Your task to perform on an android device: toggle airplane mode Image 0: 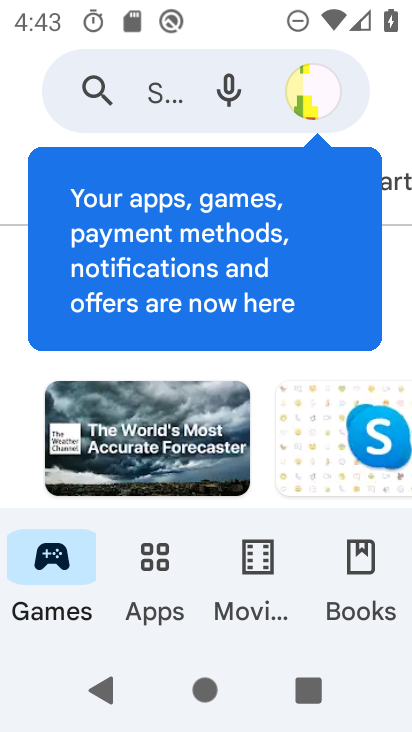
Step 0: press home button
Your task to perform on an android device: toggle airplane mode Image 1: 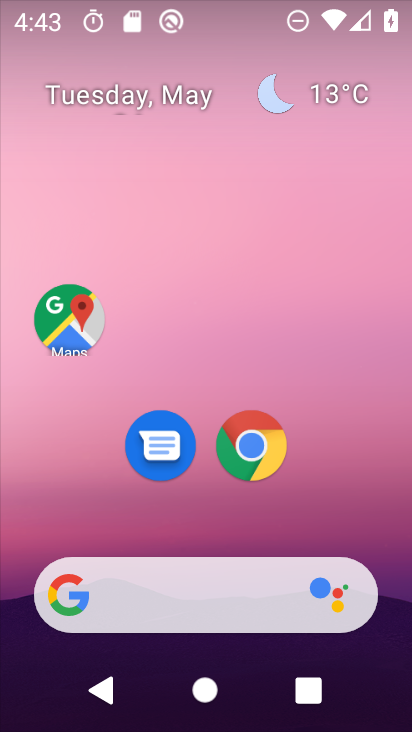
Step 1: drag from (227, 4) to (239, 544)
Your task to perform on an android device: toggle airplane mode Image 2: 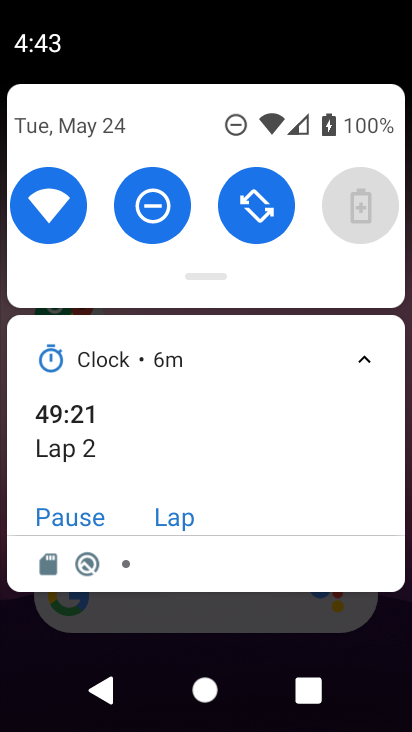
Step 2: drag from (215, 277) to (272, 660)
Your task to perform on an android device: toggle airplane mode Image 3: 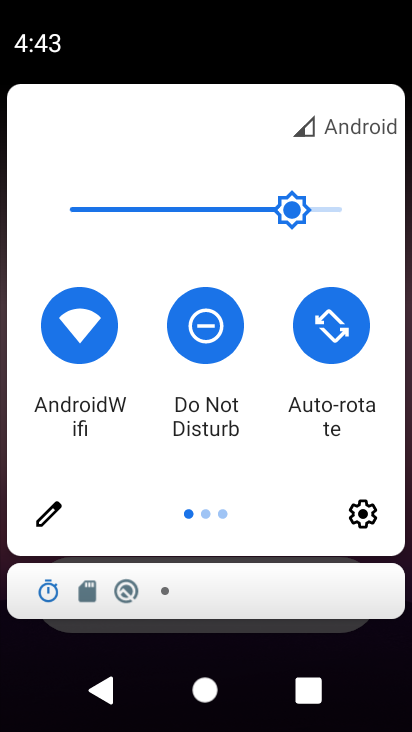
Step 3: drag from (337, 352) to (63, 357)
Your task to perform on an android device: toggle airplane mode Image 4: 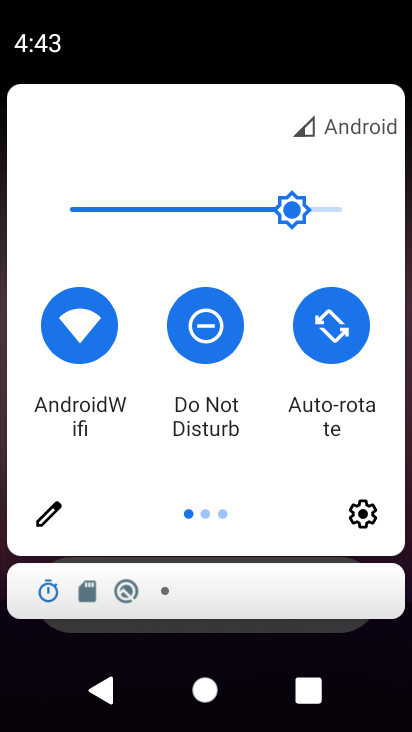
Step 4: drag from (369, 358) to (58, 346)
Your task to perform on an android device: toggle airplane mode Image 5: 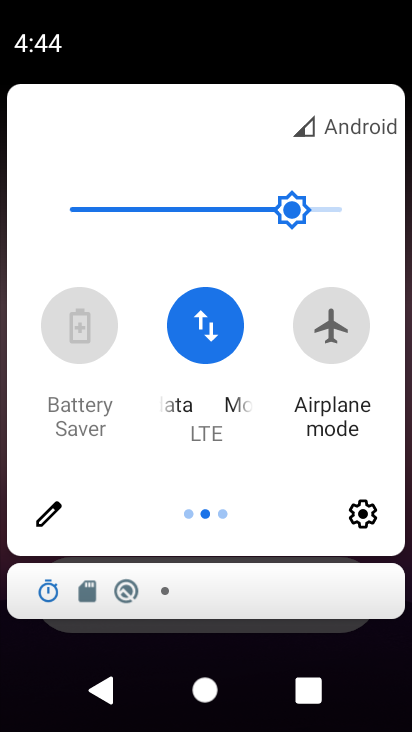
Step 5: click (330, 323)
Your task to perform on an android device: toggle airplane mode Image 6: 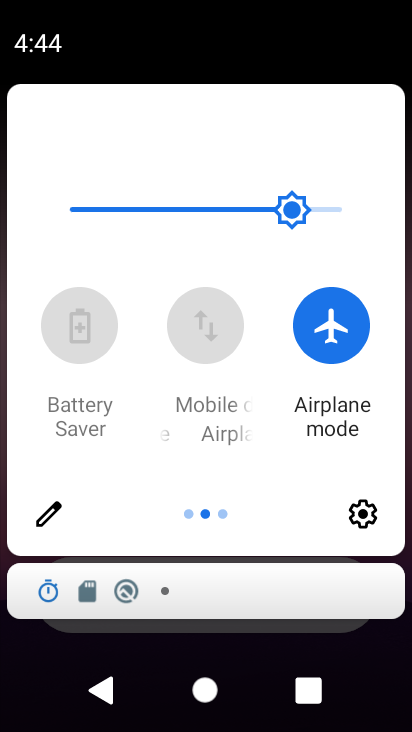
Step 6: task complete